Your task to perform on an android device: change timer sound Image 0: 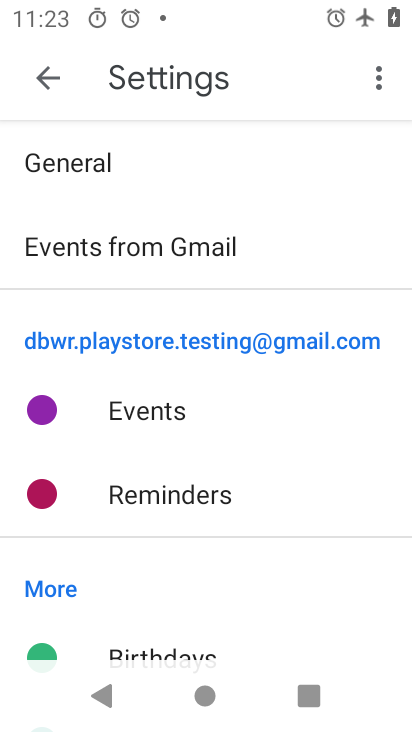
Step 0: press home button
Your task to perform on an android device: change timer sound Image 1: 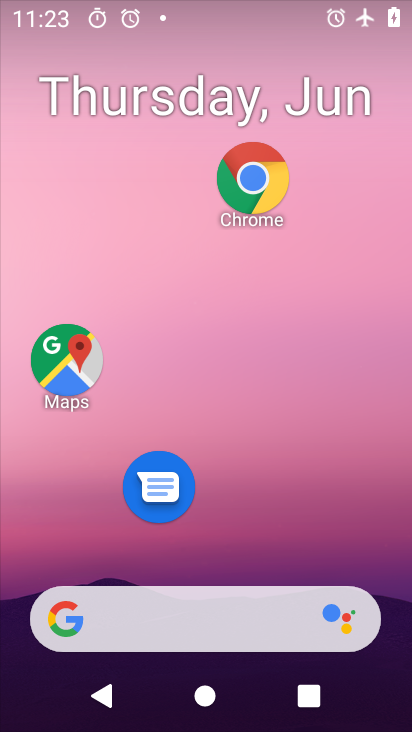
Step 1: drag from (236, 724) to (223, 104)
Your task to perform on an android device: change timer sound Image 2: 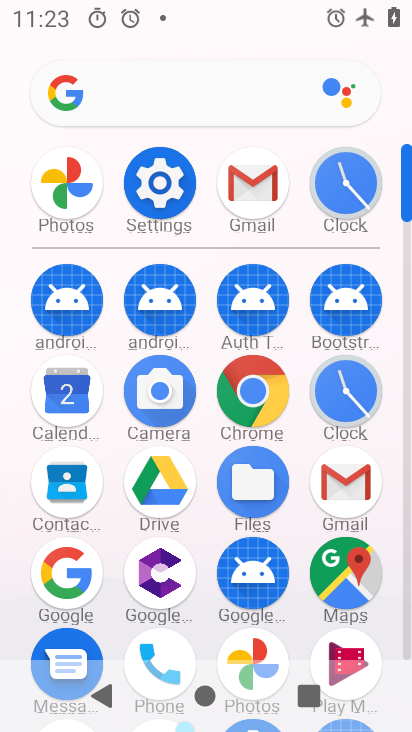
Step 2: click (361, 389)
Your task to perform on an android device: change timer sound Image 3: 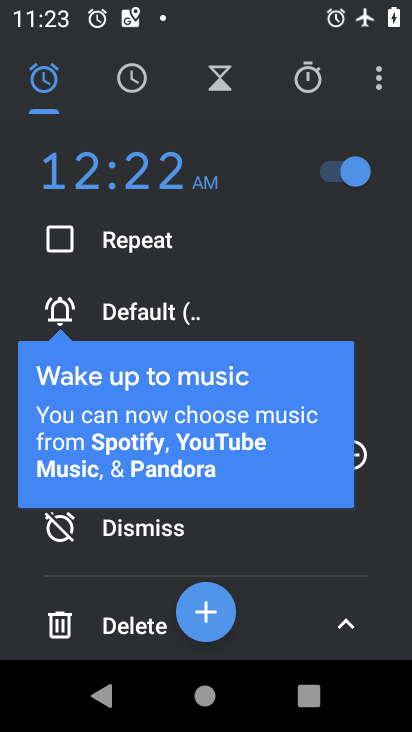
Step 3: click (380, 87)
Your task to perform on an android device: change timer sound Image 4: 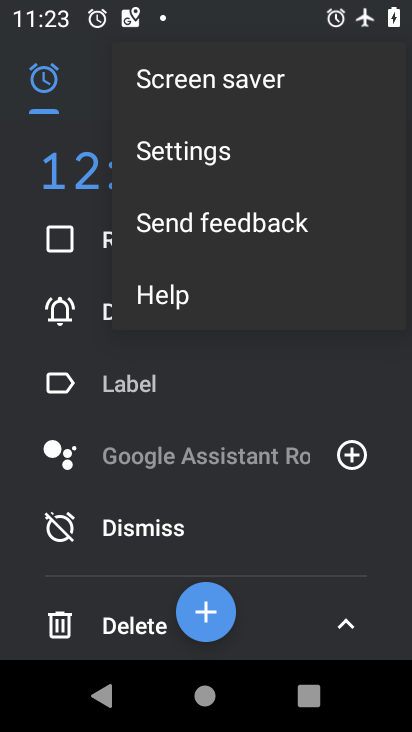
Step 4: click (180, 148)
Your task to perform on an android device: change timer sound Image 5: 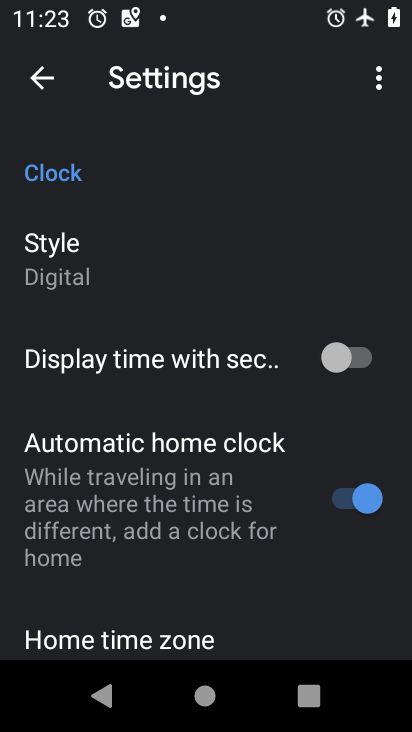
Step 5: drag from (158, 615) to (155, 171)
Your task to perform on an android device: change timer sound Image 6: 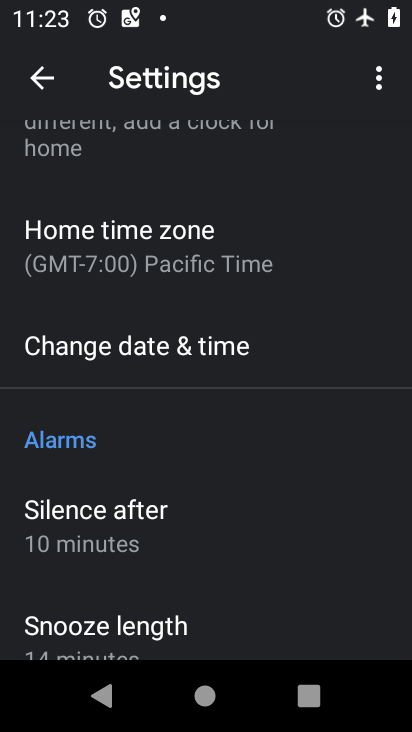
Step 6: drag from (136, 606) to (141, 352)
Your task to perform on an android device: change timer sound Image 7: 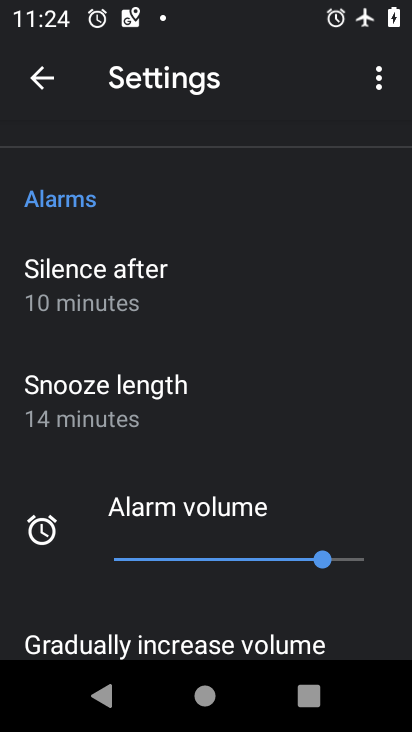
Step 7: drag from (106, 647) to (129, 208)
Your task to perform on an android device: change timer sound Image 8: 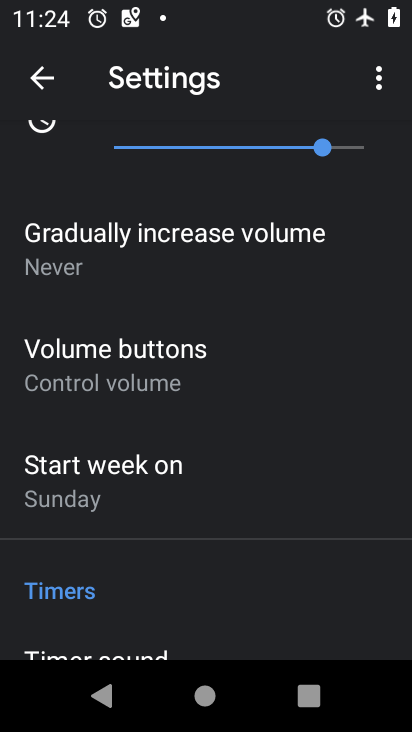
Step 8: drag from (175, 634) to (181, 325)
Your task to perform on an android device: change timer sound Image 9: 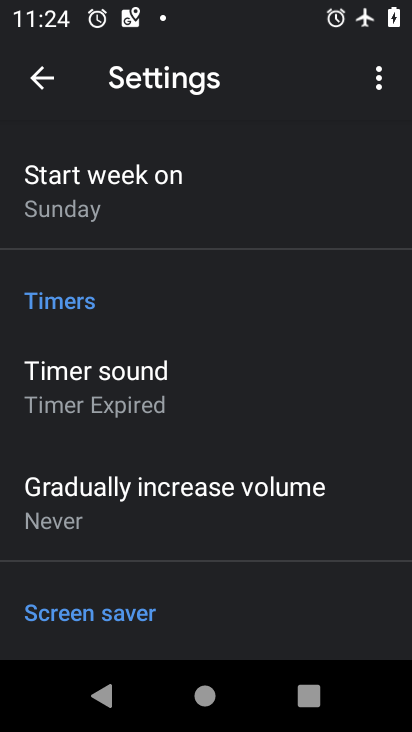
Step 9: click (115, 397)
Your task to perform on an android device: change timer sound Image 10: 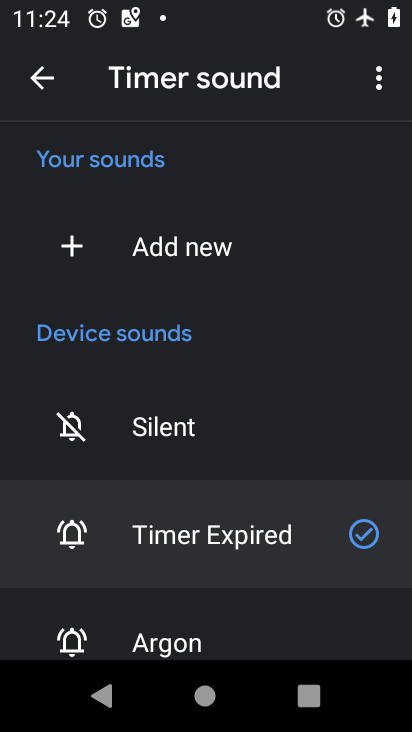
Step 10: click (165, 437)
Your task to perform on an android device: change timer sound Image 11: 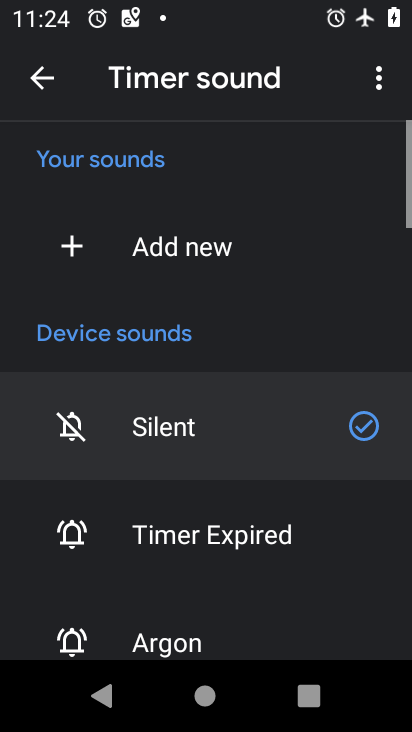
Step 11: click (165, 631)
Your task to perform on an android device: change timer sound Image 12: 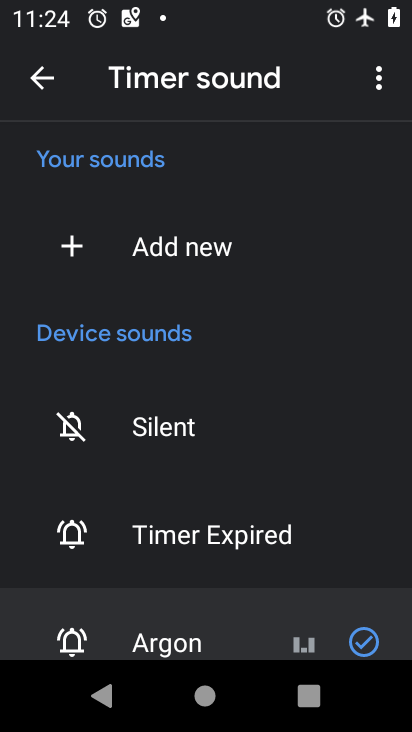
Step 12: task complete